Your task to perform on an android device: Open Amazon Image 0: 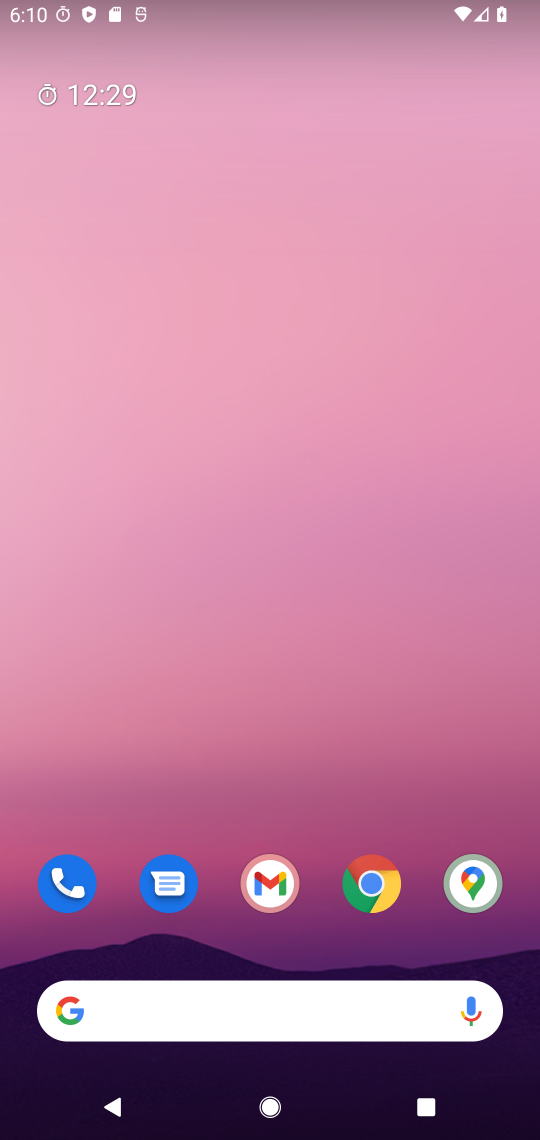
Step 0: click (358, 882)
Your task to perform on an android device: Open Amazon Image 1: 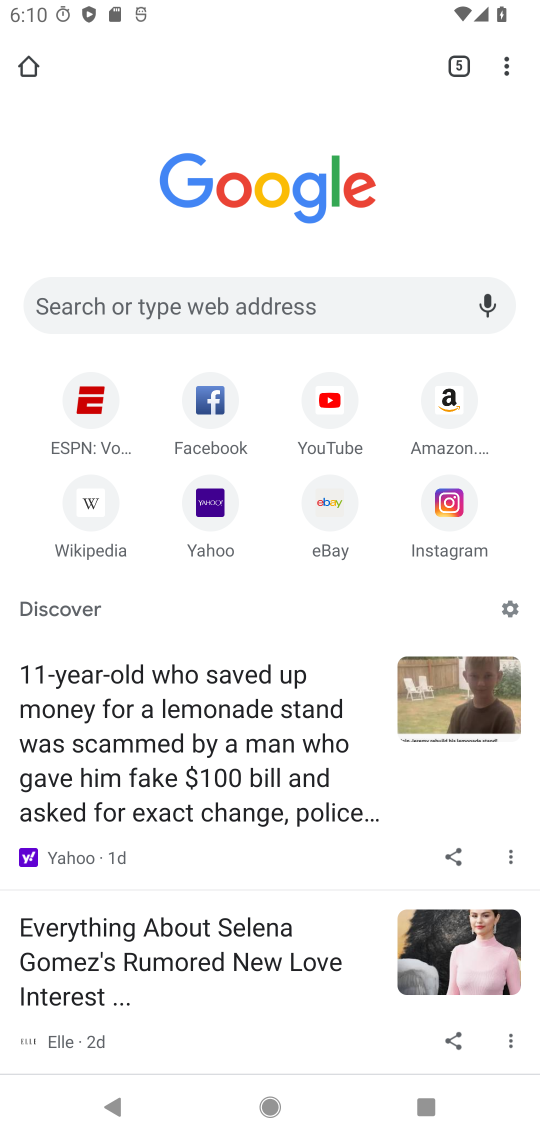
Step 1: click (450, 414)
Your task to perform on an android device: Open Amazon Image 2: 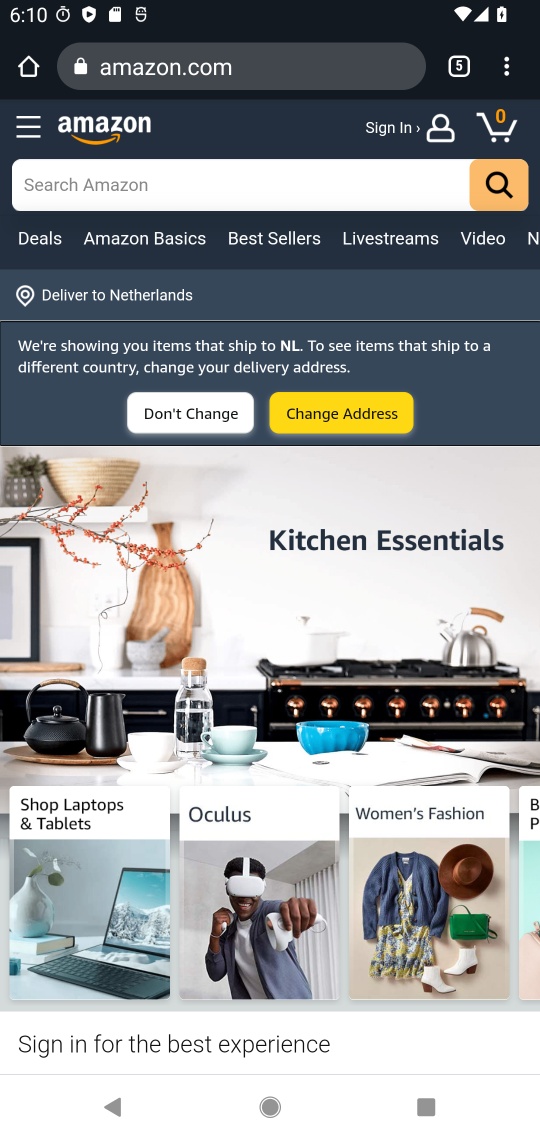
Step 2: task complete